Your task to perform on an android device: uninstall "Skype" Image 0: 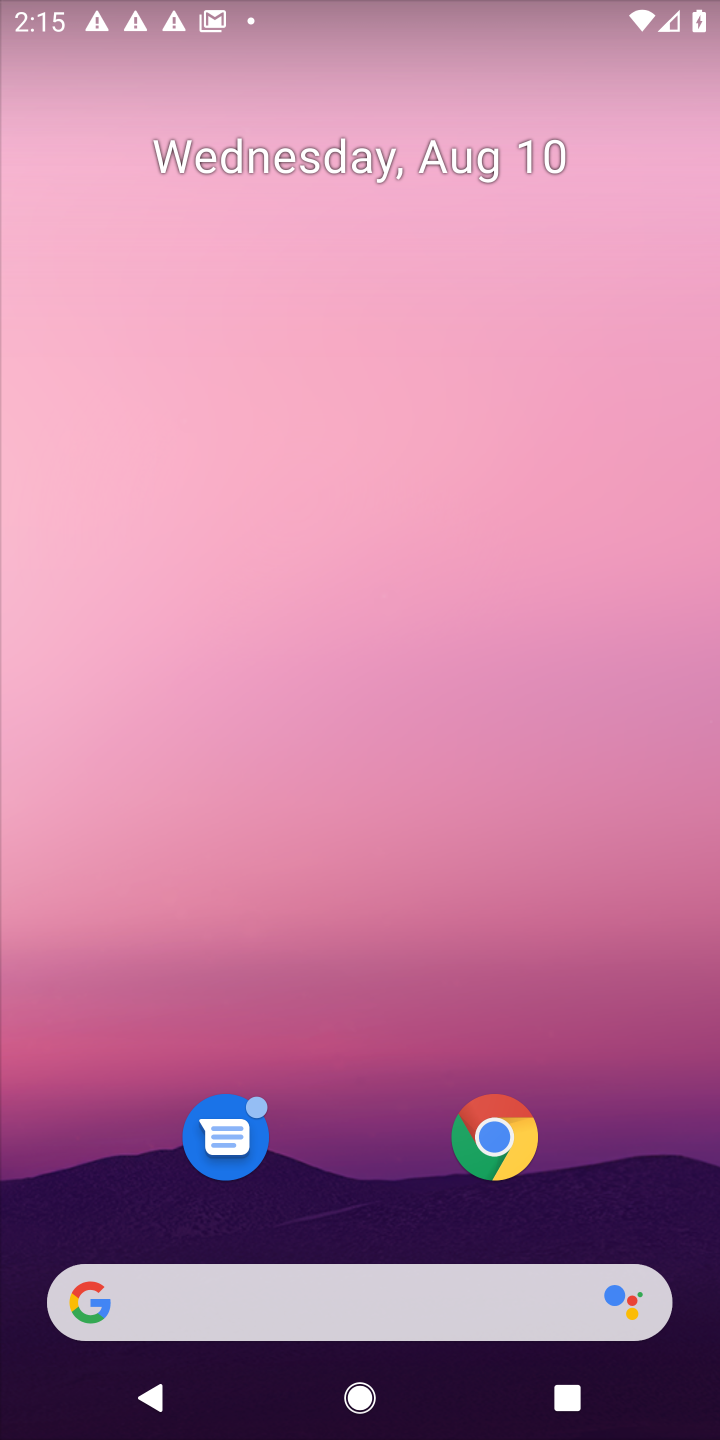
Step 0: drag from (362, 1169) to (422, 213)
Your task to perform on an android device: uninstall "Skype" Image 1: 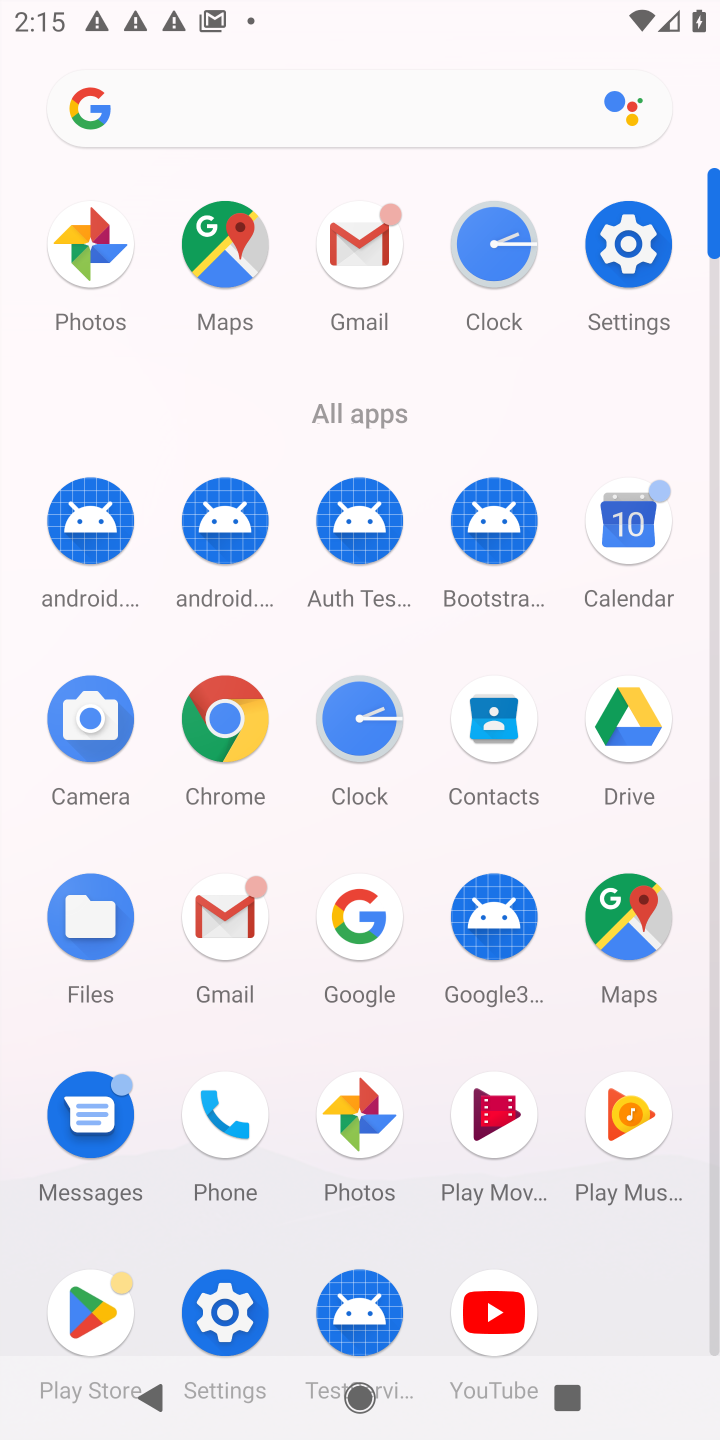
Step 1: click (68, 1315)
Your task to perform on an android device: uninstall "Skype" Image 2: 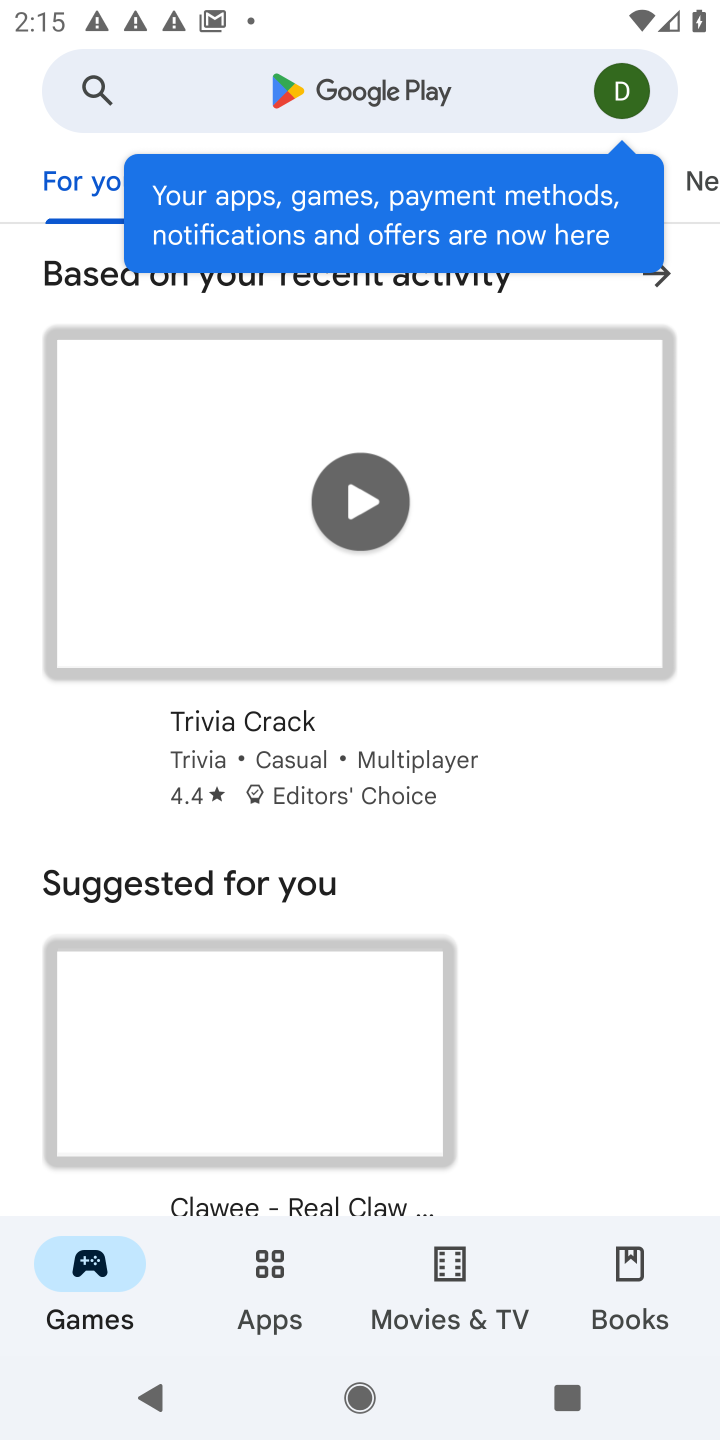
Step 2: click (370, 95)
Your task to perform on an android device: uninstall "Skype" Image 3: 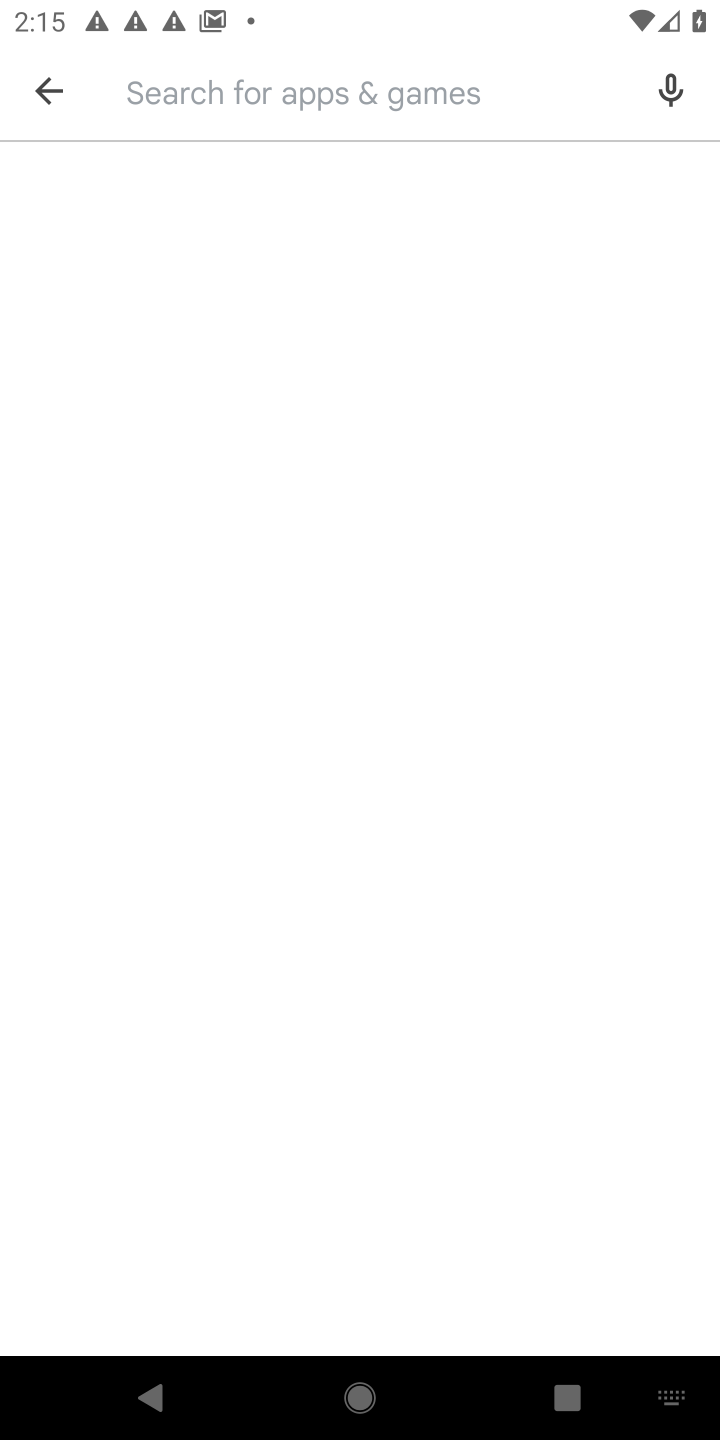
Step 3: type "skype"
Your task to perform on an android device: uninstall "Skype" Image 4: 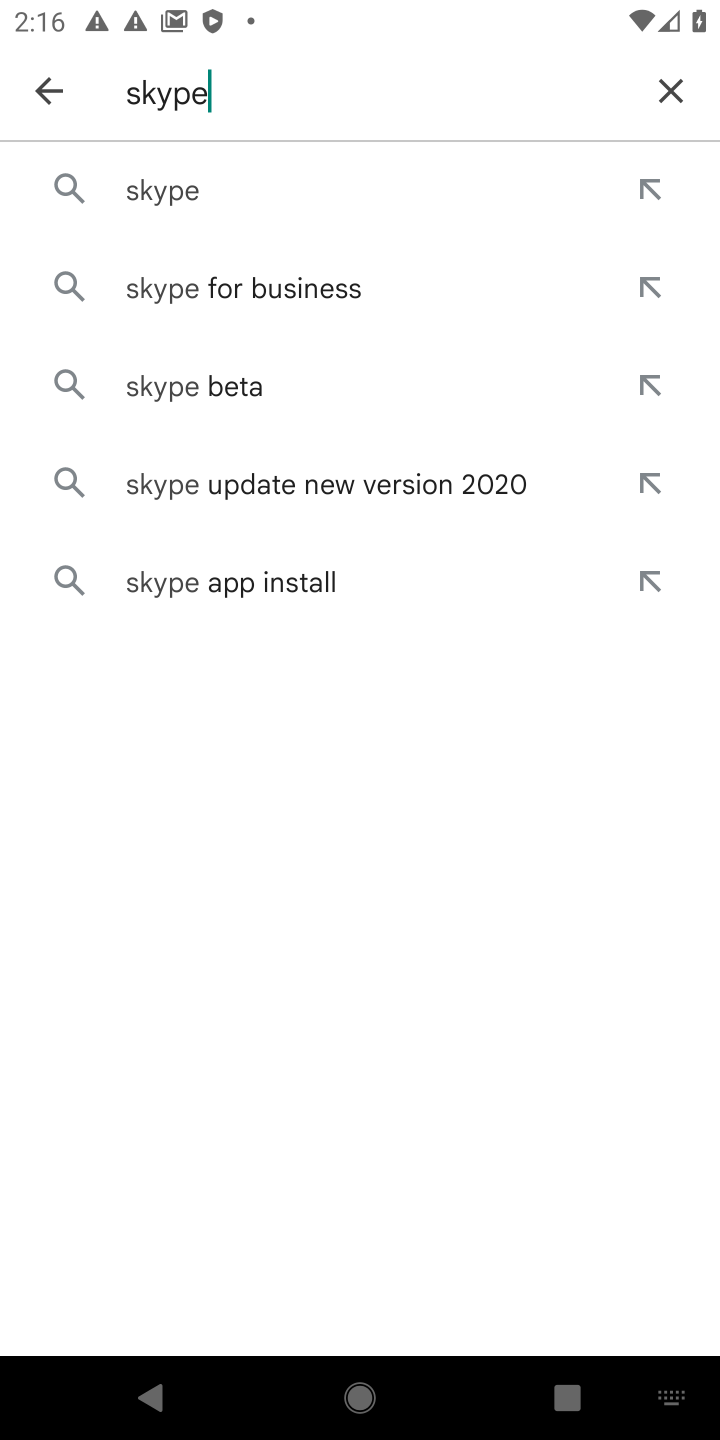
Step 4: click (116, 206)
Your task to perform on an android device: uninstall "Skype" Image 5: 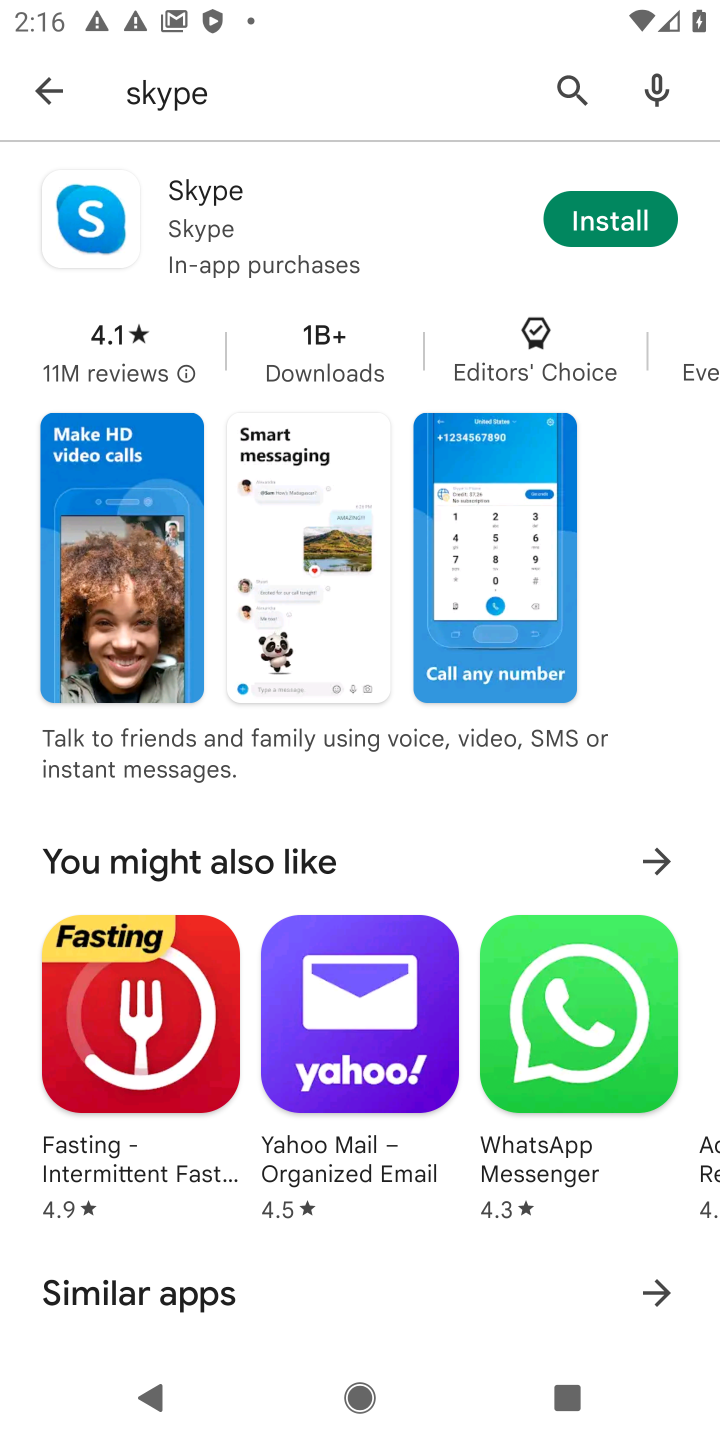
Step 5: task complete